Your task to perform on an android device: Open Chrome and go to the settings page Image 0: 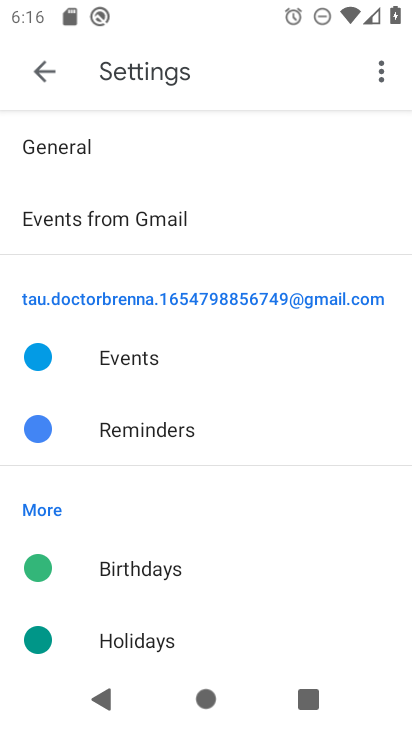
Step 0: press home button
Your task to perform on an android device: Open Chrome and go to the settings page Image 1: 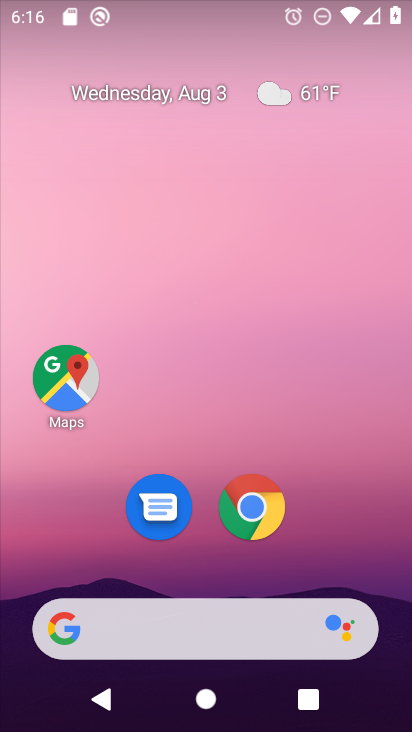
Step 1: drag from (357, 509) to (343, 38)
Your task to perform on an android device: Open Chrome and go to the settings page Image 2: 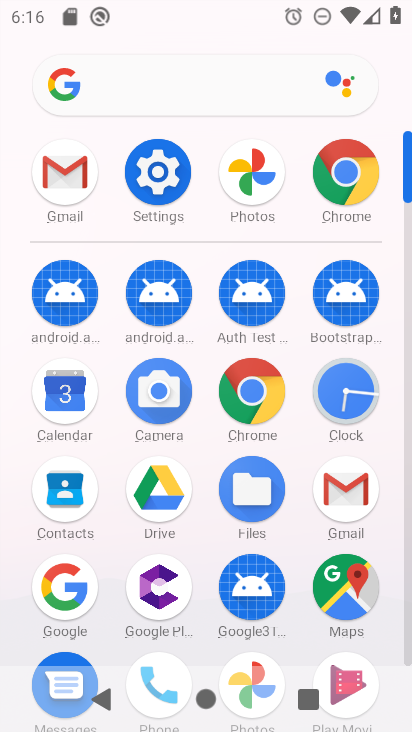
Step 2: click (245, 392)
Your task to perform on an android device: Open Chrome and go to the settings page Image 3: 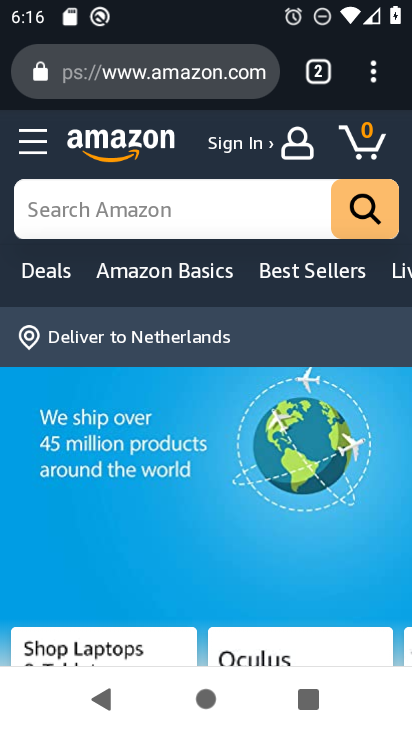
Step 3: task complete